Your task to perform on an android device: Do I have any events tomorrow? Image 0: 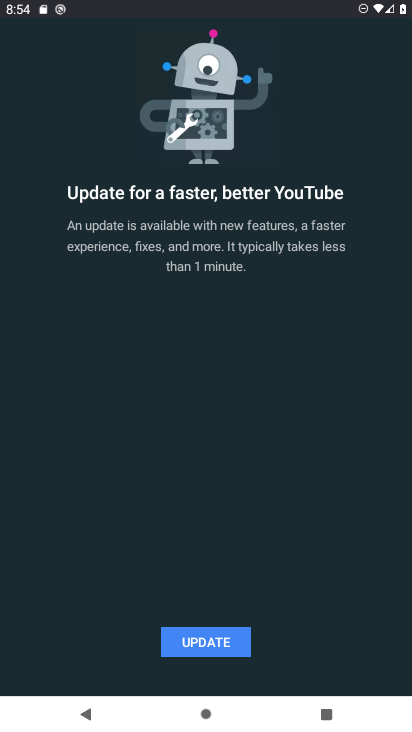
Step 0: press home button
Your task to perform on an android device: Do I have any events tomorrow? Image 1: 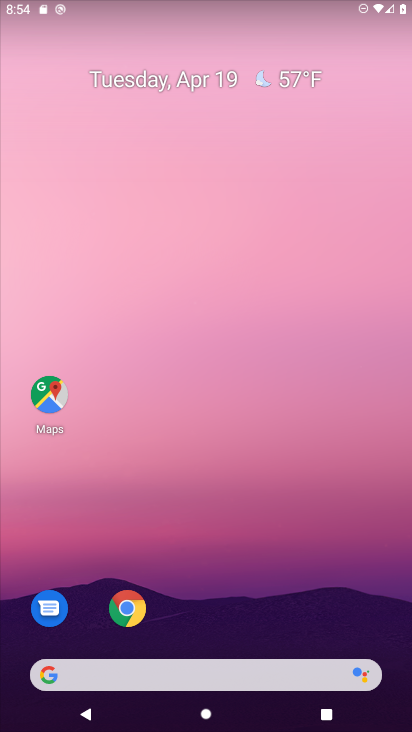
Step 1: drag from (234, 576) to (203, 91)
Your task to perform on an android device: Do I have any events tomorrow? Image 2: 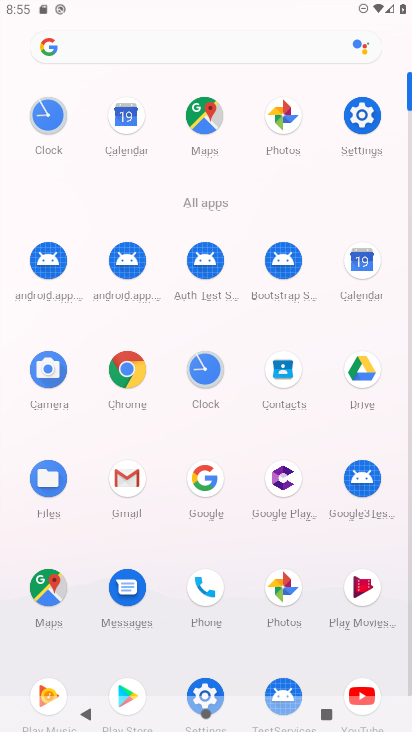
Step 2: drag from (249, 440) to (211, 231)
Your task to perform on an android device: Do I have any events tomorrow? Image 3: 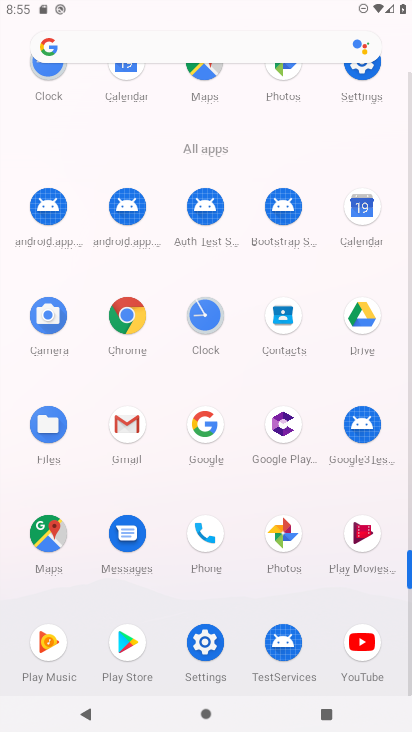
Step 3: click (367, 195)
Your task to perform on an android device: Do I have any events tomorrow? Image 4: 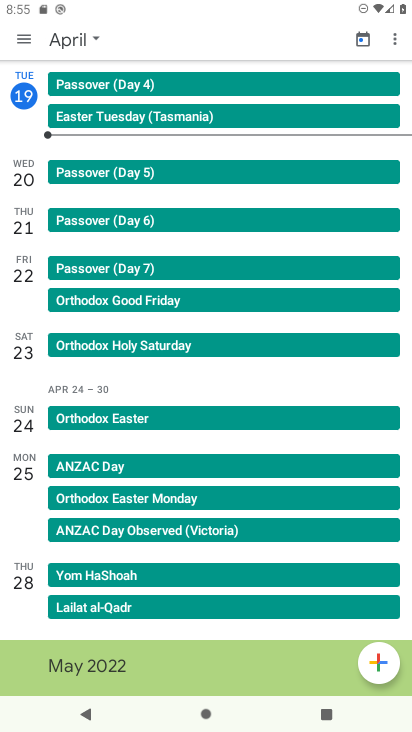
Step 4: click (96, 34)
Your task to perform on an android device: Do I have any events tomorrow? Image 5: 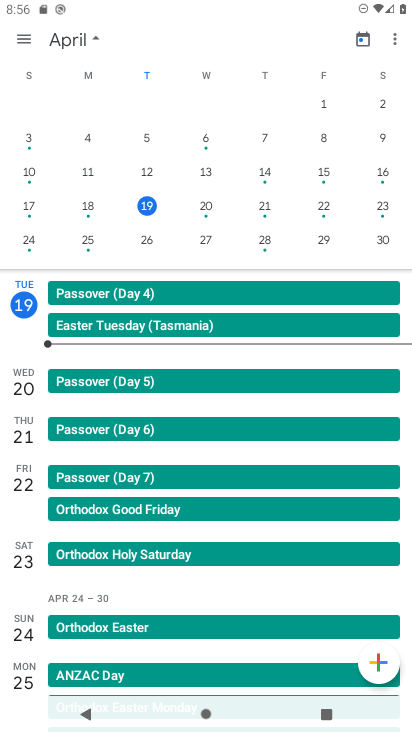
Step 5: click (28, 39)
Your task to perform on an android device: Do I have any events tomorrow? Image 6: 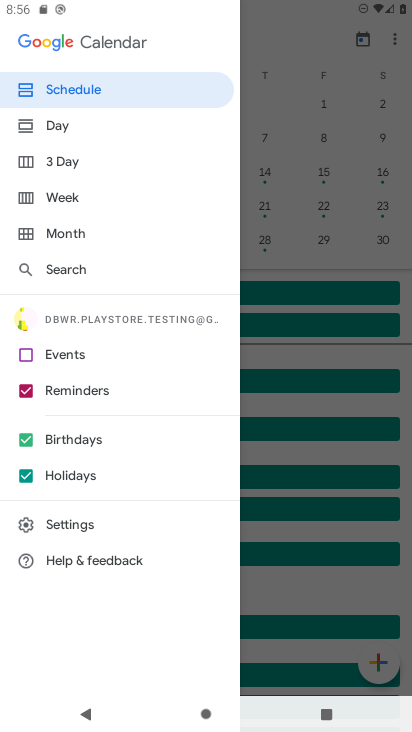
Step 6: click (23, 357)
Your task to perform on an android device: Do I have any events tomorrow? Image 7: 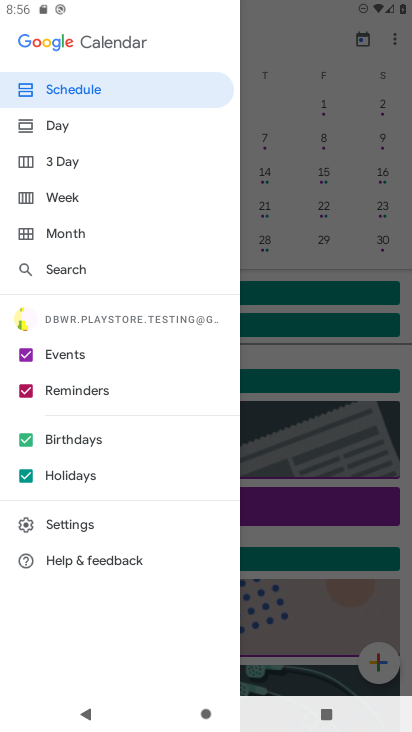
Step 7: click (288, 264)
Your task to perform on an android device: Do I have any events tomorrow? Image 8: 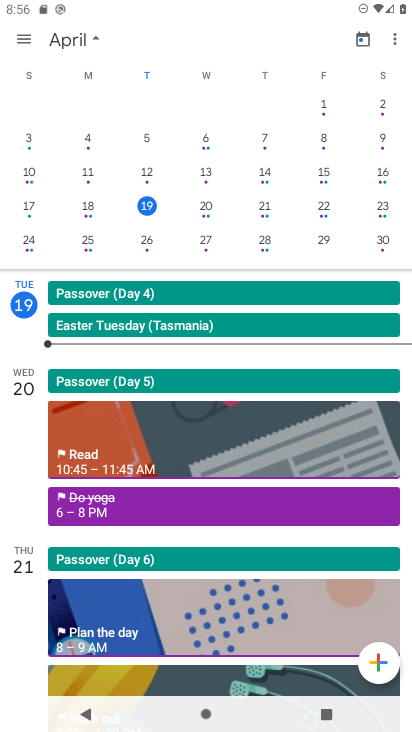
Step 8: click (167, 442)
Your task to perform on an android device: Do I have any events tomorrow? Image 9: 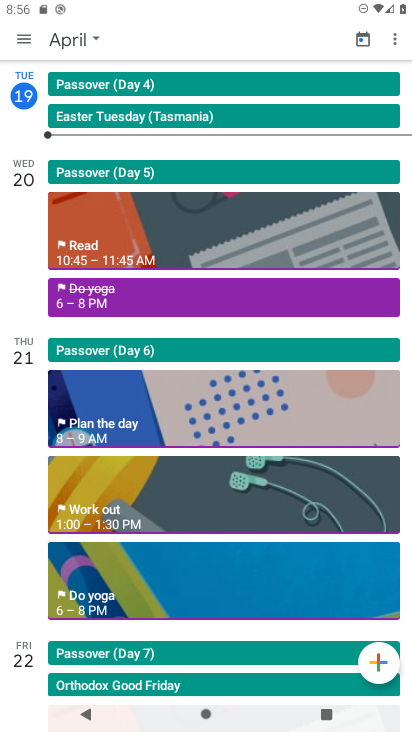
Step 9: task complete